Your task to perform on an android device: What is the news today? Image 0: 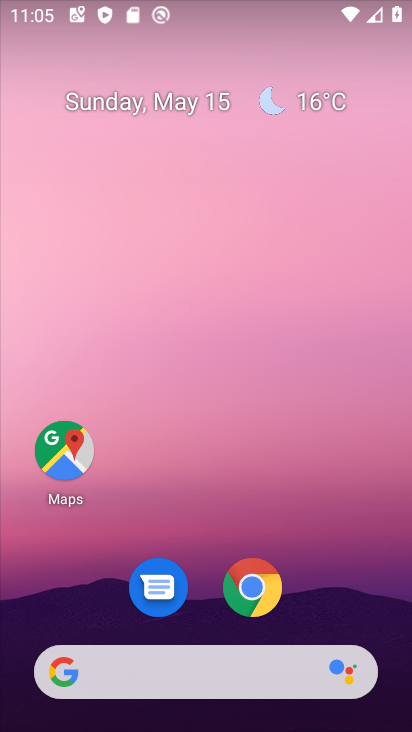
Step 0: drag from (296, 414) to (244, 26)
Your task to perform on an android device: What is the news today? Image 1: 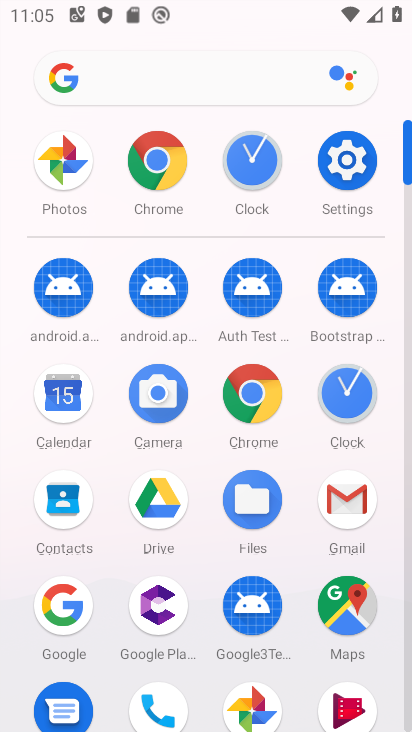
Step 1: drag from (16, 601) to (30, 237)
Your task to perform on an android device: What is the news today? Image 2: 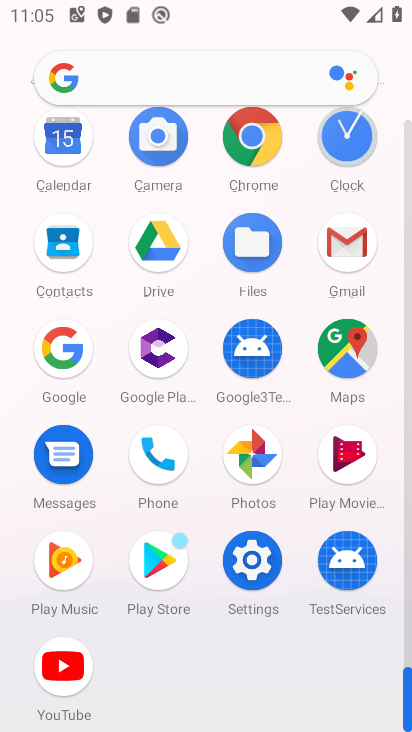
Step 2: click (254, 137)
Your task to perform on an android device: What is the news today? Image 3: 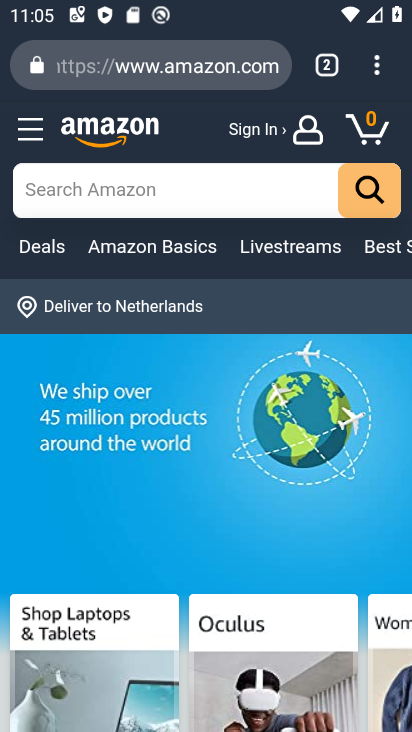
Step 3: click (174, 54)
Your task to perform on an android device: What is the news today? Image 4: 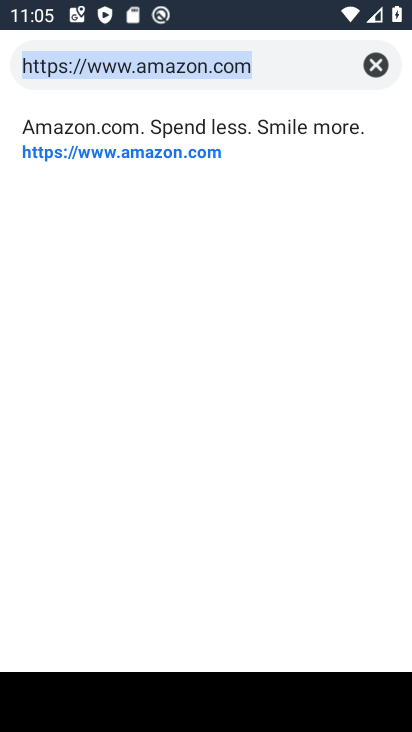
Step 4: click (369, 67)
Your task to perform on an android device: What is the news today? Image 5: 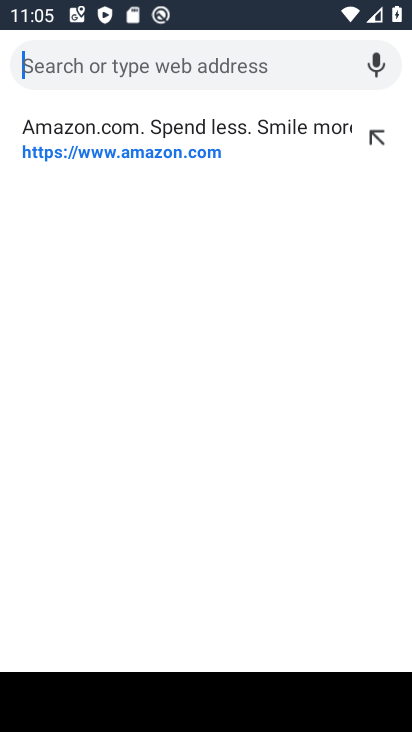
Step 5: type "What is the news today?"
Your task to perform on an android device: What is the news today? Image 6: 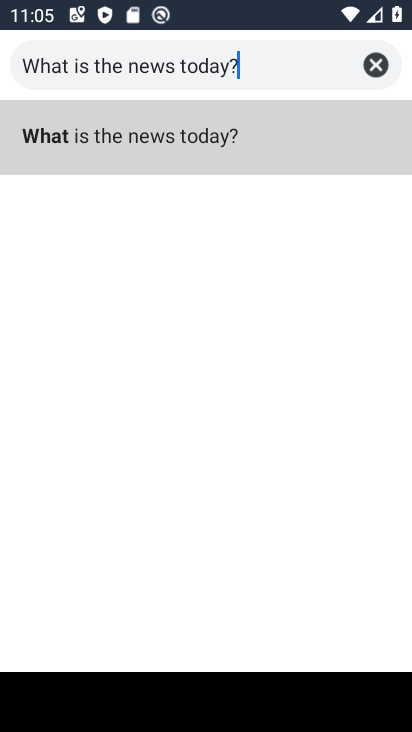
Step 6: type ""
Your task to perform on an android device: What is the news today? Image 7: 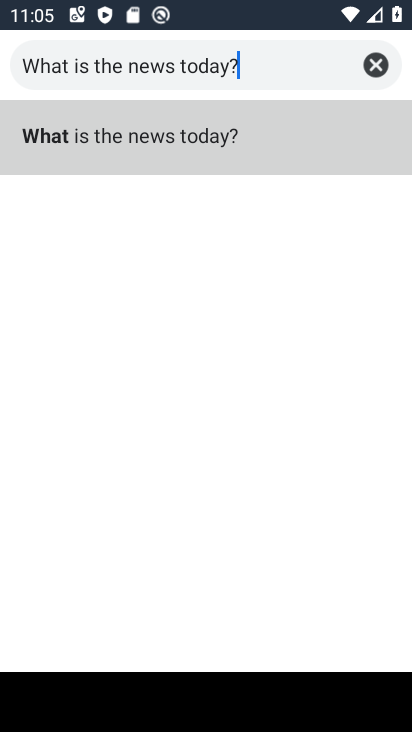
Step 7: click (144, 137)
Your task to perform on an android device: What is the news today? Image 8: 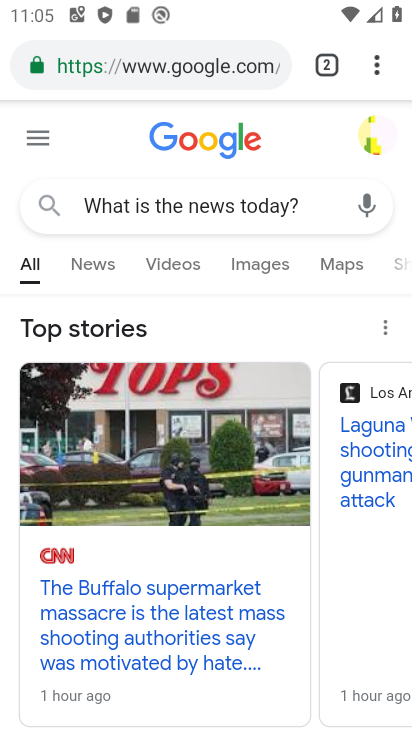
Step 8: task complete